Your task to perform on an android device: Search for seafood restaurants on Google Maps Image 0: 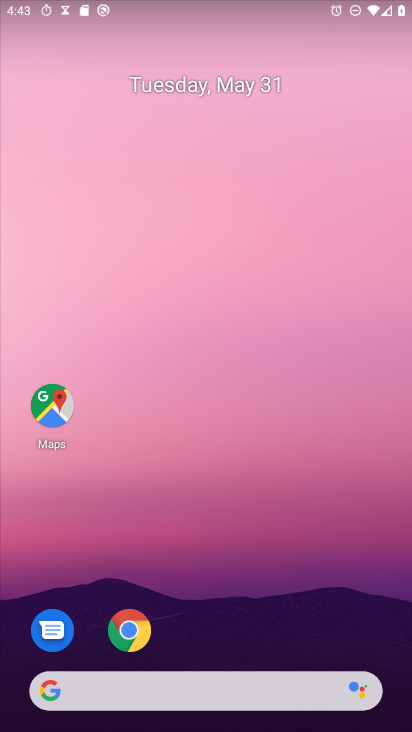
Step 0: drag from (264, 696) to (242, 4)
Your task to perform on an android device: Search for seafood restaurants on Google Maps Image 1: 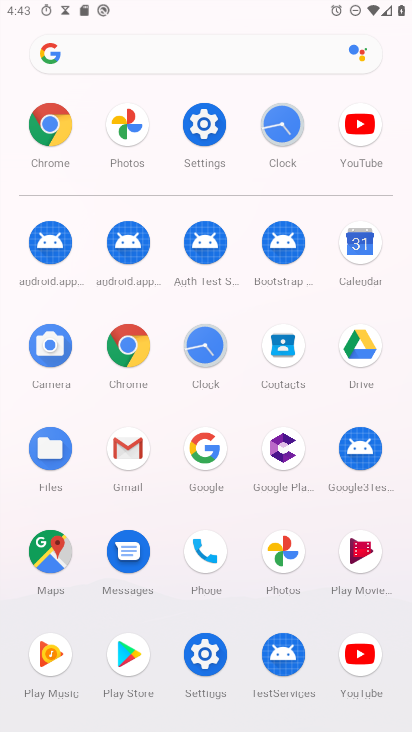
Step 1: click (49, 548)
Your task to perform on an android device: Search for seafood restaurants on Google Maps Image 2: 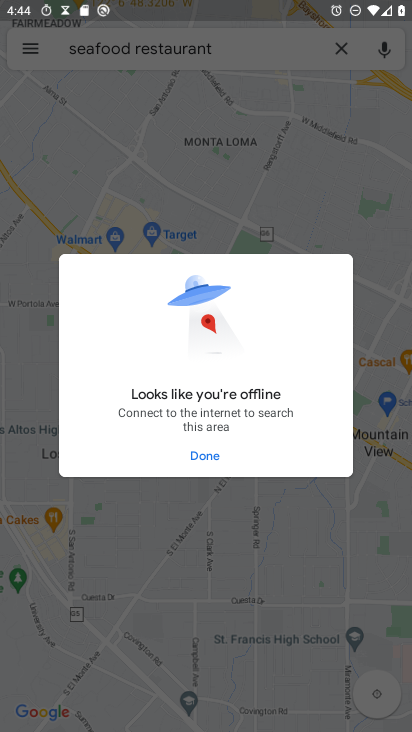
Step 2: click (213, 450)
Your task to perform on an android device: Search for seafood restaurants on Google Maps Image 3: 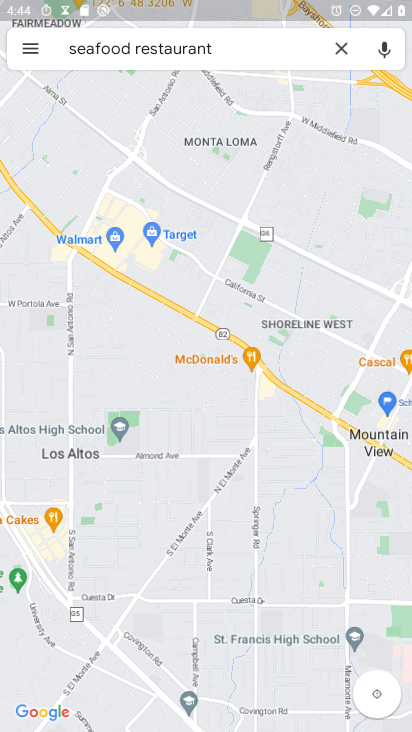
Step 3: click (268, 51)
Your task to perform on an android device: Search for seafood restaurants on Google Maps Image 4: 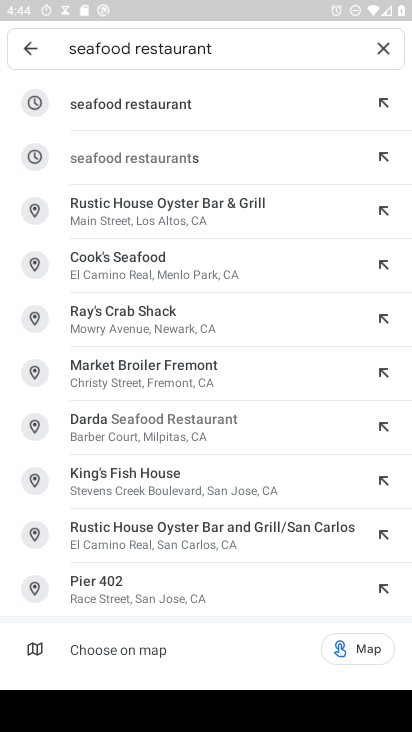
Step 4: click (255, 109)
Your task to perform on an android device: Search for seafood restaurants on Google Maps Image 5: 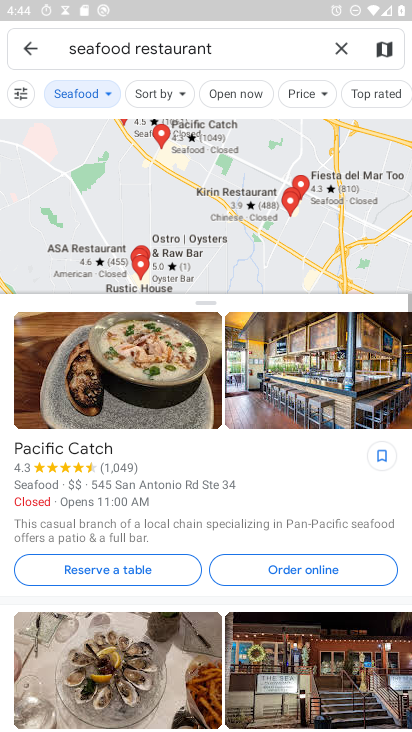
Step 5: task complete